Your task to perform on an android device: Search for sushi restaurants on Maps Image 0: 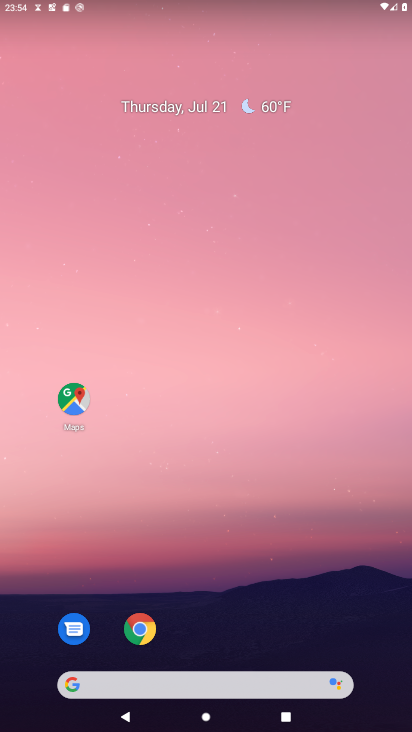
Step 0: drag from (210, 653) to (243, 137)
Your task to perform on an android device: Search for sushi restaurants on Maps Image 1: 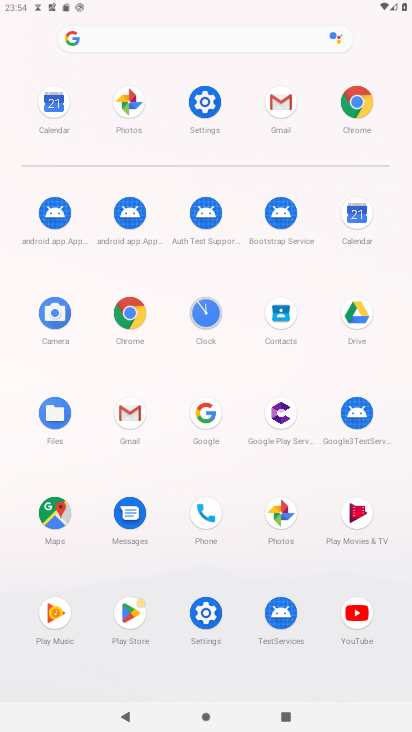
Step 1: click (50, 511)
Your task to perform on an android device: Search for sushi restaurants on Maps Image 2: 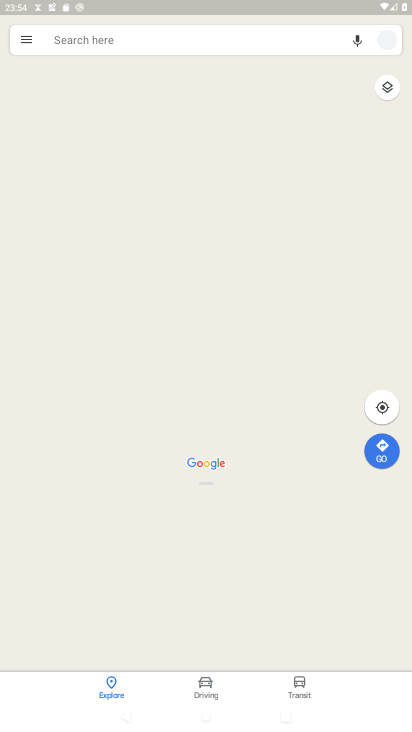
Step 2: click (194, 34)
Your task to perform on an android device: Search for sushi restaurants on Maps Image 3: 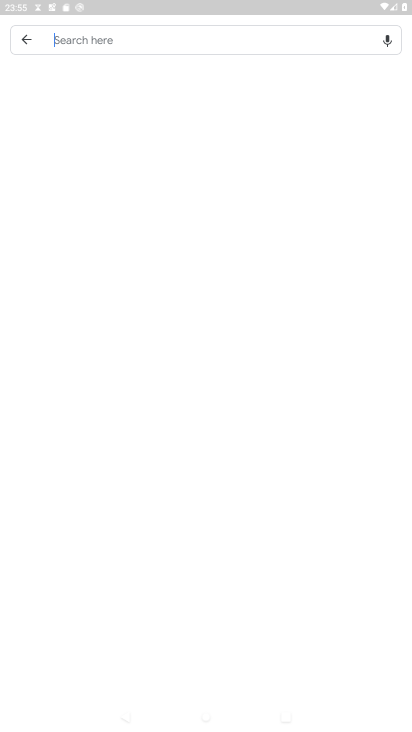
Step 3: click (194, 34)
Your task to perform on an android device: Search for sushi restaurants on Maps Image 4: 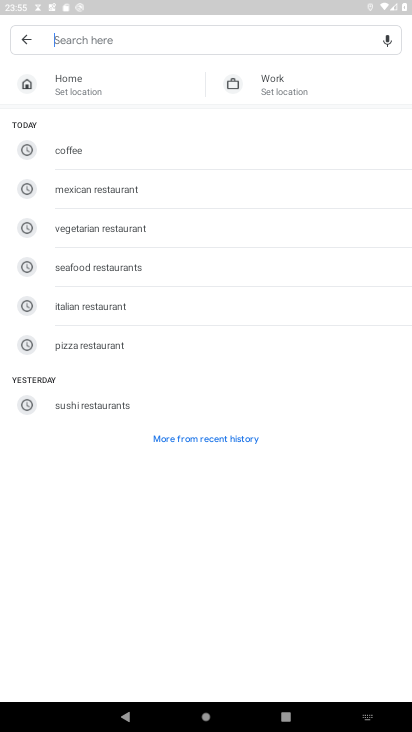
Step 4: click (105, 405)
Your task to perform on an android device: Search for sushi restaurants on Maps Image 5: 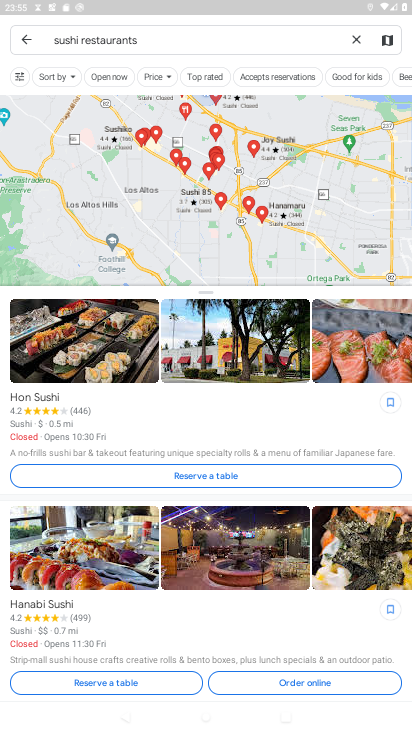
Step 5: task complete